Your task to perform on an android device: allow cookies in the chrome app Image 0: 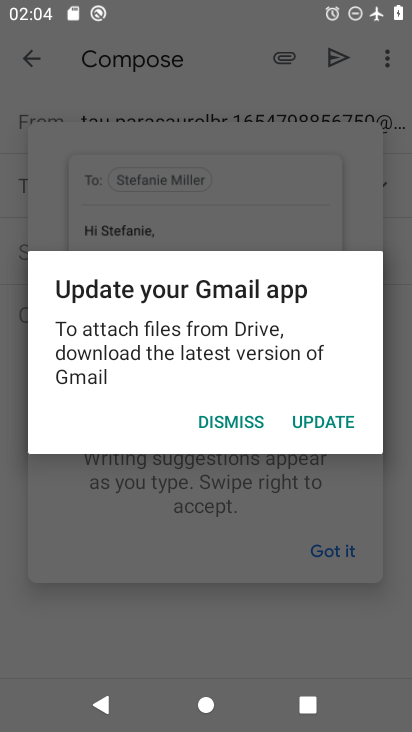
Step 0: press home button
Your task to perform on an android device: allow cookies in the chrome app Image 1: 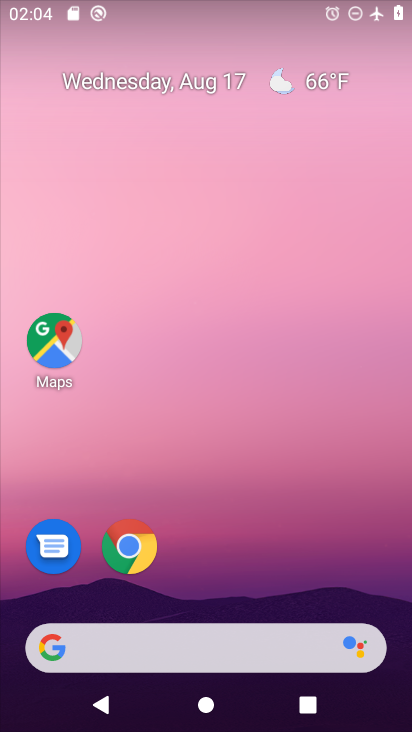
Step 1: click (130, 550)
Your task to perform on an android device: allow cookies in the chrome app Image 2: 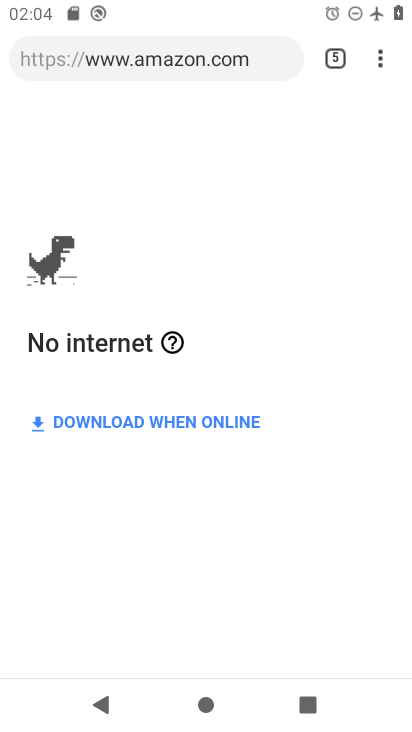
Step 2: click (377, 59)
Your task to perform on an android device: allow cookies in the chrome app Image 3: 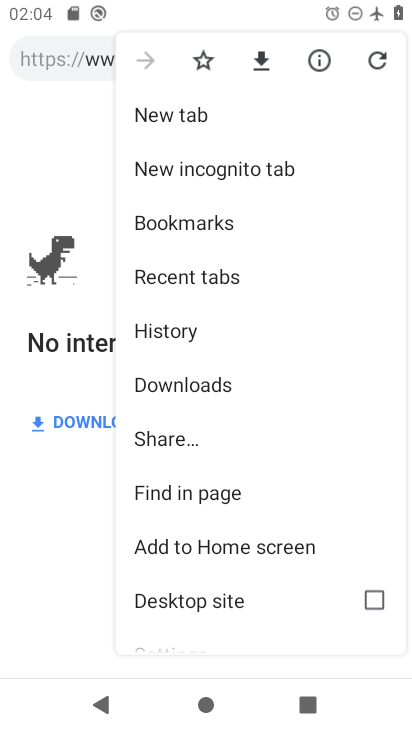
Step 3: drag from (260, 579) to (255, 155)
Your task to perform on an android device: allow cookies in the chrome app Image 4: 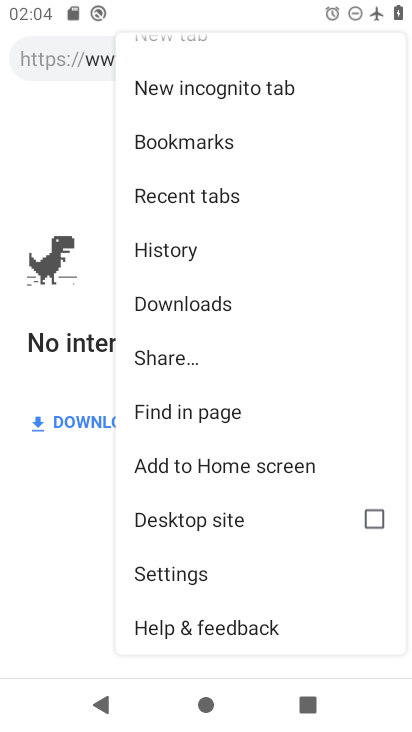
Step 4: click (172, 579)
Your task to perform on an android device: allow cookies in the chrome app Image 5: 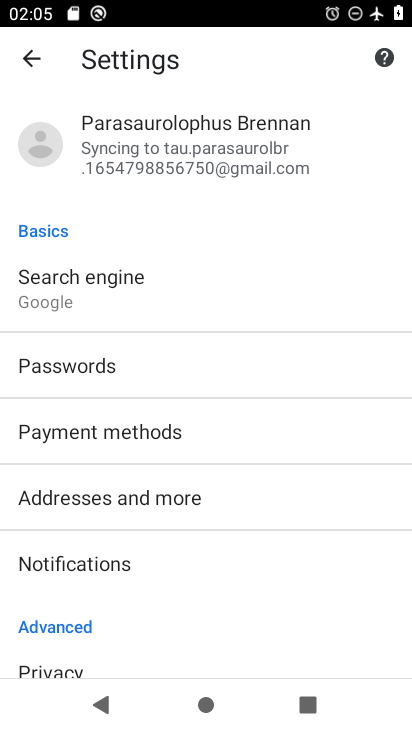
Step 5: drag from (172, 579) to (172, 193)
Your task to perform on an android device: allow cookies in the chrome app Image 6: 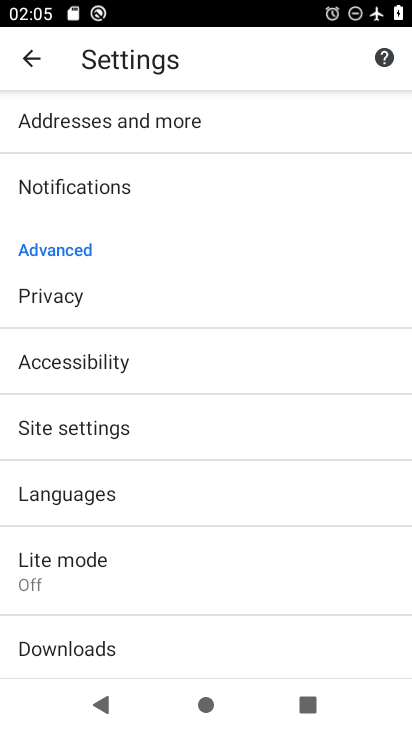
Step 6: drag from (207, 590) to (207, 164)
Your task to perform on an android device: allow cookies in the chrome app Image 7: 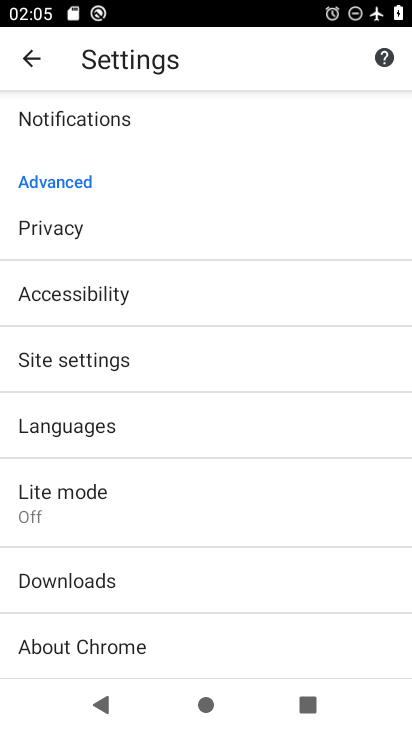
Step 7: drag from (187, 611) to (180, 144)
Your task to perform on an android device: allow cookies in the chrome app Image 8: 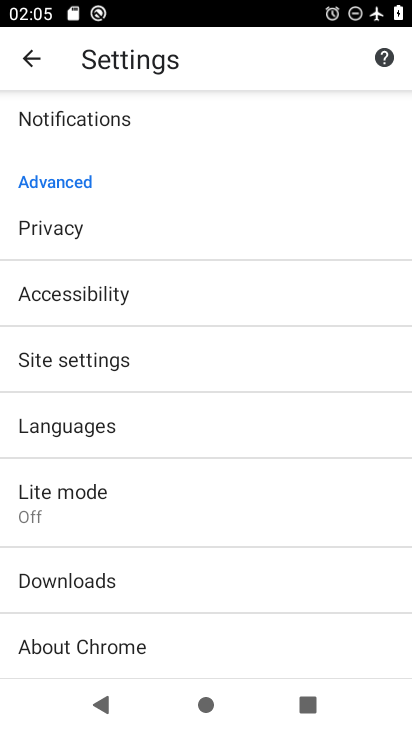
Step 8: drag from (222, 573) to (222, 185)
Your task to perform on an android device: allow cookies in the chrome app Image 9: 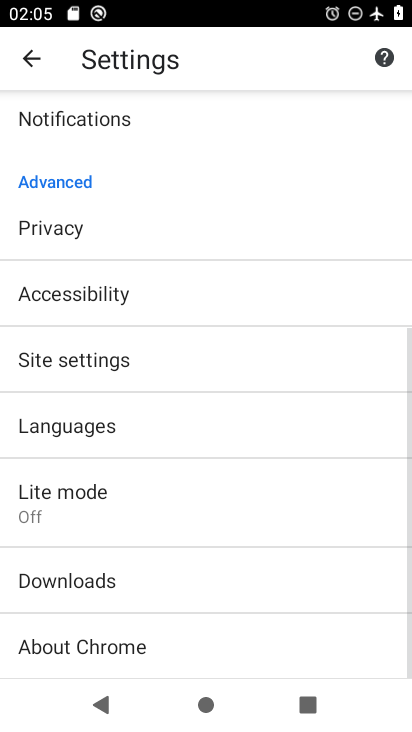
Step 9: click (76, 353)
Your task to perform on an android device: allow cookies in the chrome app Image 10: 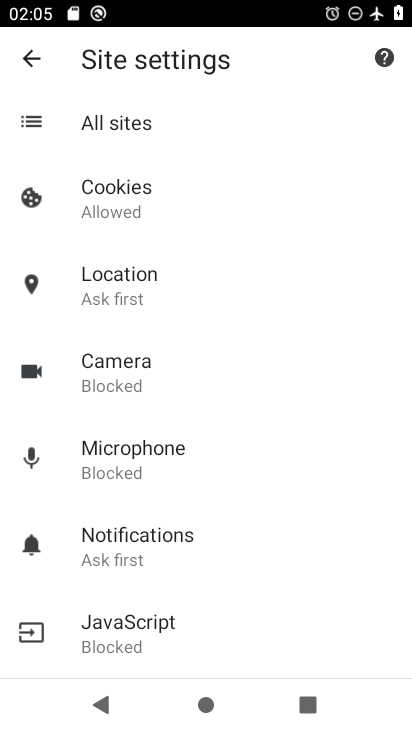
Step 10: click (122, 184)
Your task to perform on an android device: allow cookies in the chrome app Image 11: 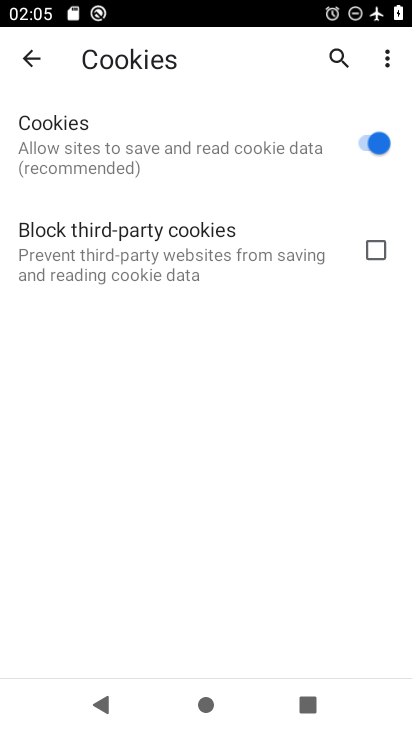
Step 11: task complete